Your task to perform on an android device: toggle notification dots Image 0: 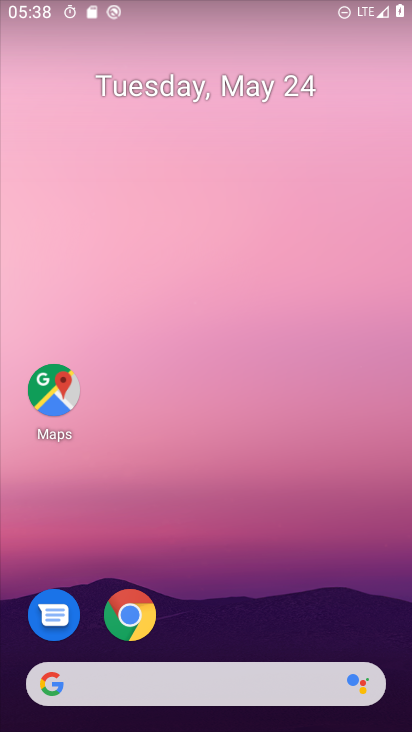
Step 0: drag from (200, 628) to (267, 136)
Your task to perform on an android device: toggle notification dots Image 1: 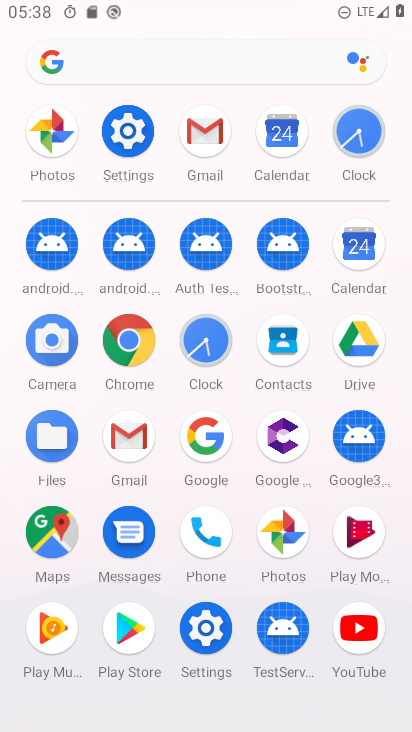
Step 1: click (120, 132)
Your task to perform on an android device: toggle notification dots Image 2: 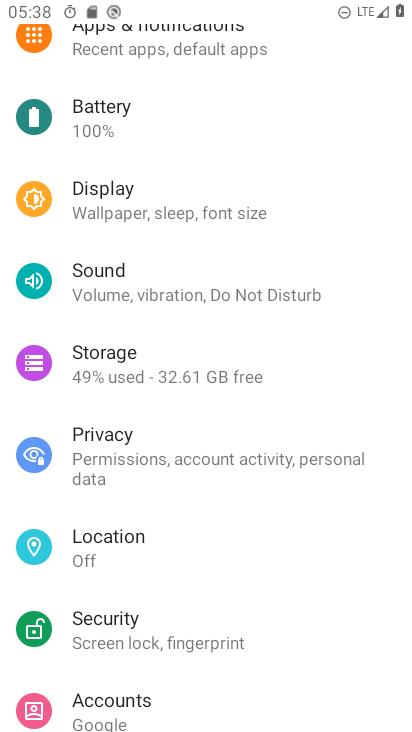
Step 2: drag from (220, 180) to (204, 538)
Your task to perform on an android device: toggle notification dots Image 3: 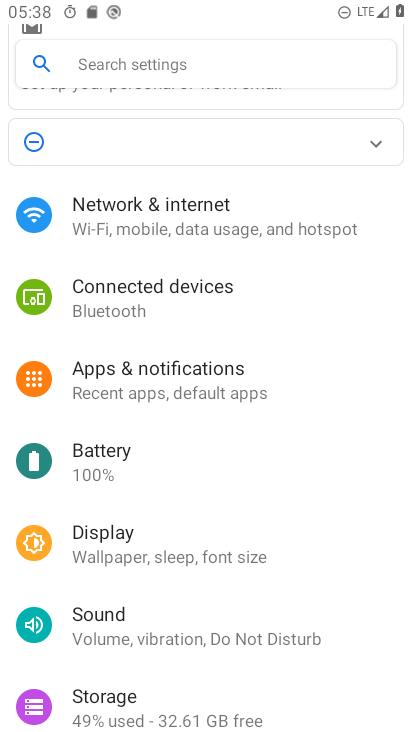
Step 3: click (176, 372)
Your task to perform on an android device: toggle notification dots Image 4: 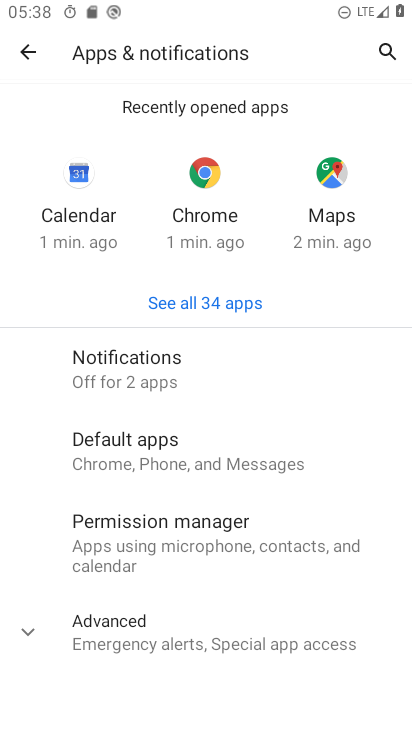
Step 4: click (165, 357)
Your task to perform on an android device: toggle notification dots Image 5: 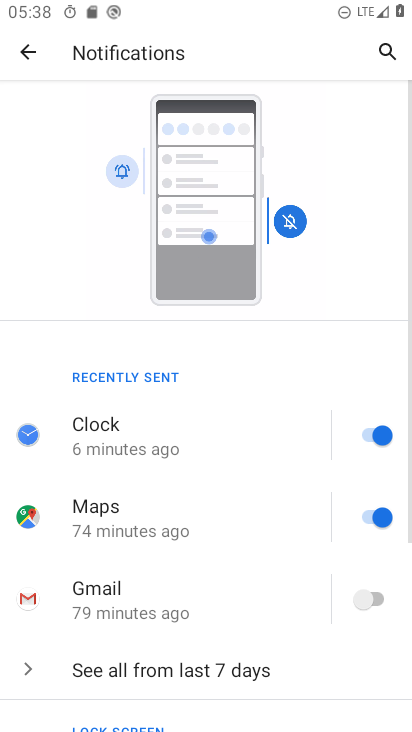
Step 5: drag from (181, 671) to (234, 218)
Your task to perform on an android device: toggle notification dots Image 6: 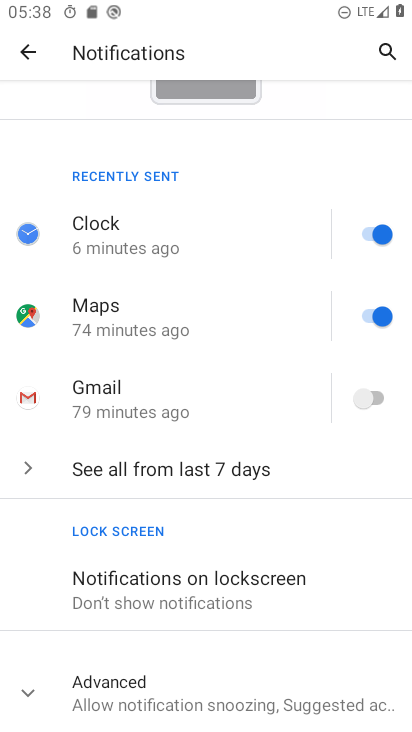
Step 6: click (123, 705)
Your task to perform on an android device: toggle notification dots Image 7: 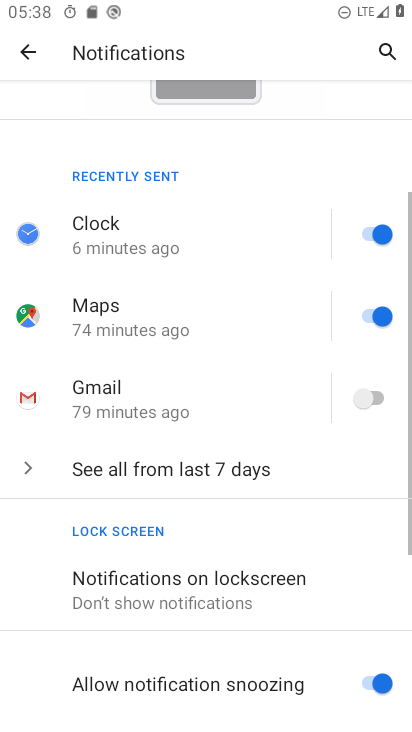
Step 7: drag from (153, 611) to (243, 84)
Your task to perform on an android device: toggle notification dots Image 8: 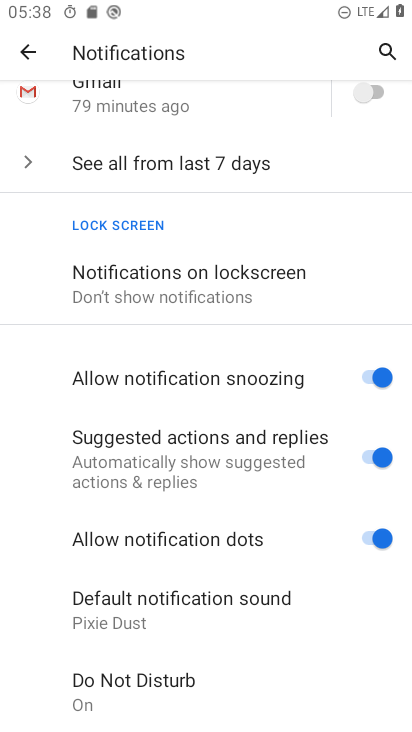
Step 8: click (374, 538)
Your task to perform on an android device: toggle notification dots Image 9: 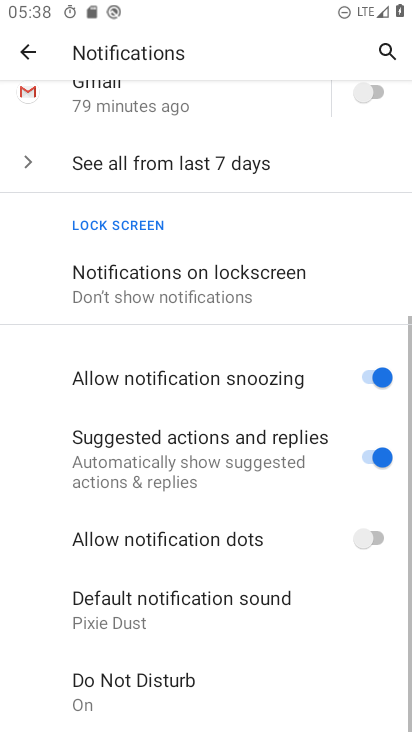
Step 9: task complete